Your task to perform on an android device: turn on javascript in the chrome app Image 0: 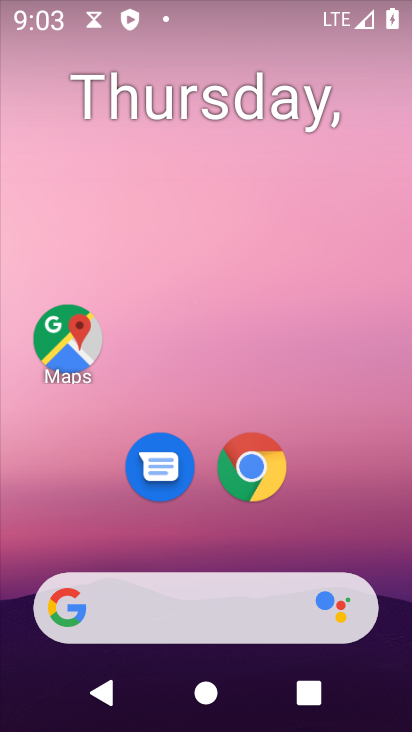
Step 0: click (236, 452)
Your task to perform on an android device: turn on javascript in the chrome app Image 1: 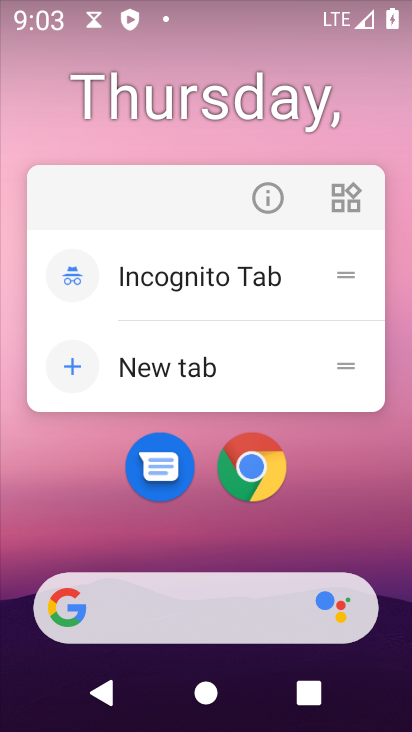
Step 1: click (236, 452)
Your task to perform on an android device: turn on javascript in the chrome app Image 2: 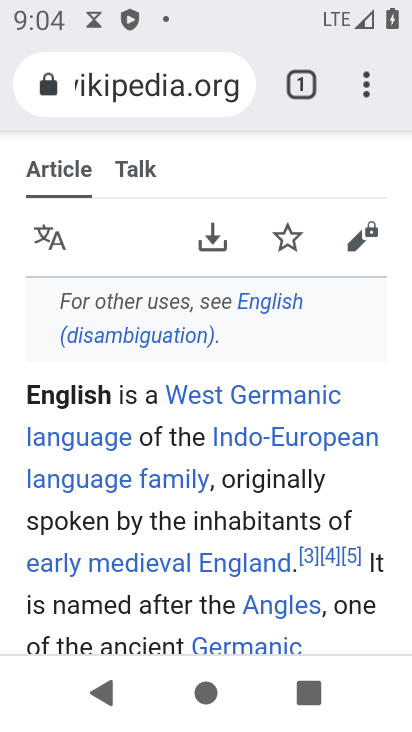
Step 2: click (354, 76)
Your task to perform on an android device: turn on javascript in the chrome app Image 3: 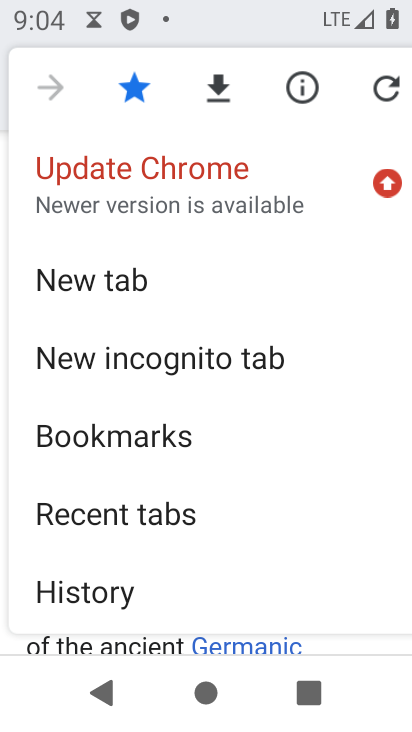
Step 3: drag from (158, 480) to (154, 323)
Your task to perform on an android device: turn on javascript in the chrome app Image 4: 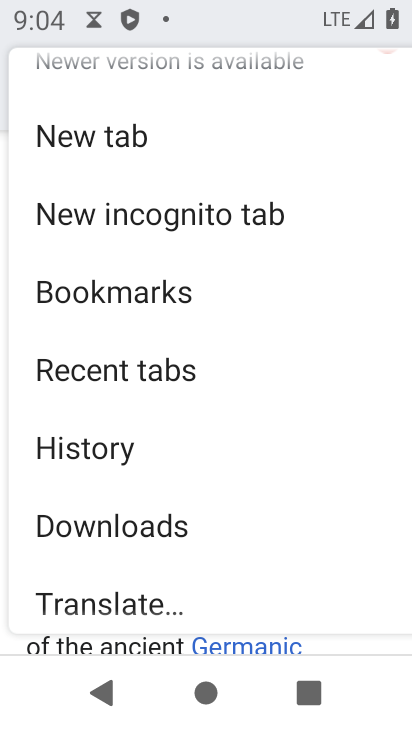
Step 4: drag from (104, 438) to (78, 323)
Your task to perform on an android device: turn on javascript in the chrome app Image 5: 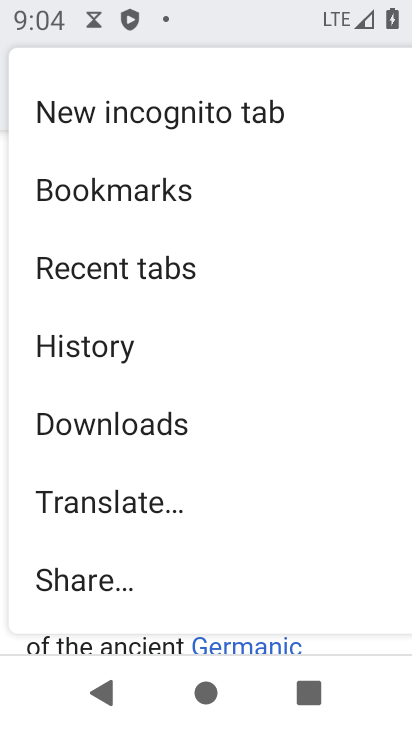
Step 5: drag from (61, 445) to (48, 338)
Your task to perform on an android device: turn on javascript in the chrome app Image 6: 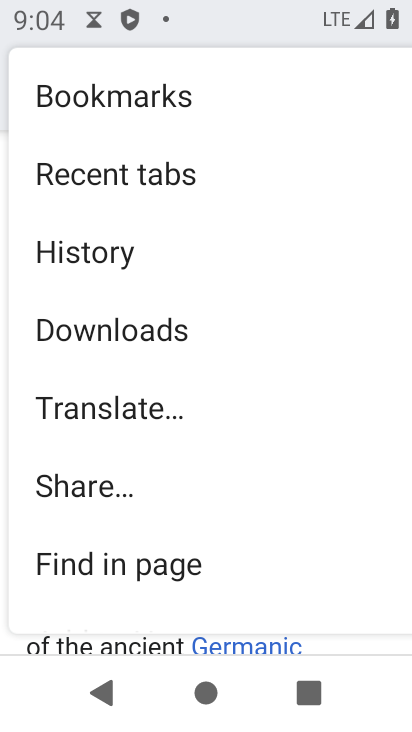
Step 6: drag from (50, 450) to (43, 344)
Your task to perform on an android device: turn on javascript in the chrome app Image 7: 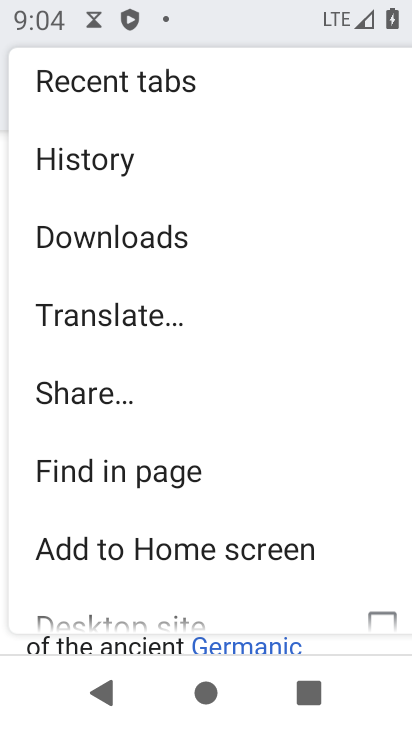
Step 7: drag from (12, 495) to (42, 412)
Your task to perform on an android device: turn on javascript in the chrome app Image 8: 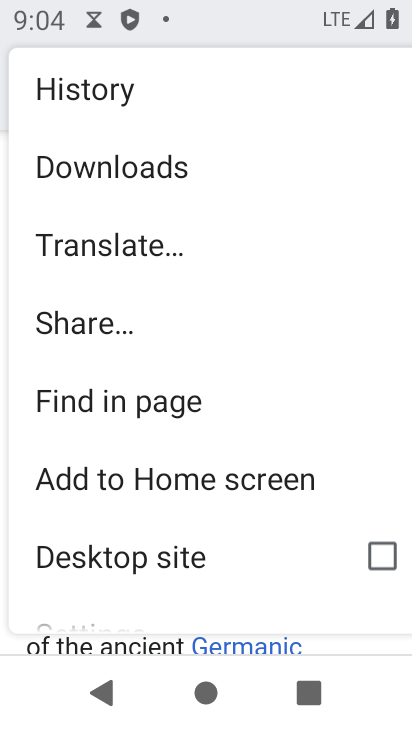
Step 8: drag from (50, 485) to (48, 398)
Your task to perform on an android device: turn on javascript in the chrome app Image 9: 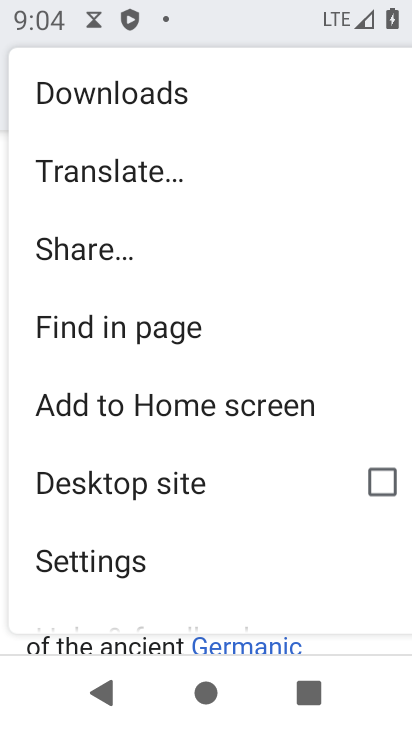
Step 9: click (83, 543)
Your task to perform on an android device: turn on javascript in the chrome app Image 10: 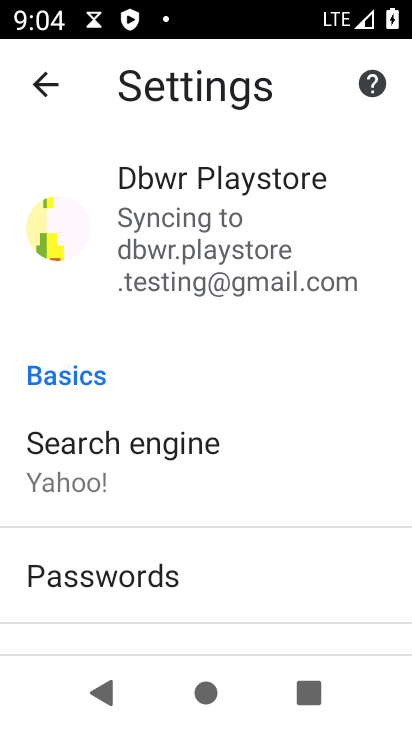
Step 10: drag from (77, 522) to (119, 298)
Your task to perform on an android device: turn on javascript in the chrome app Image 11: 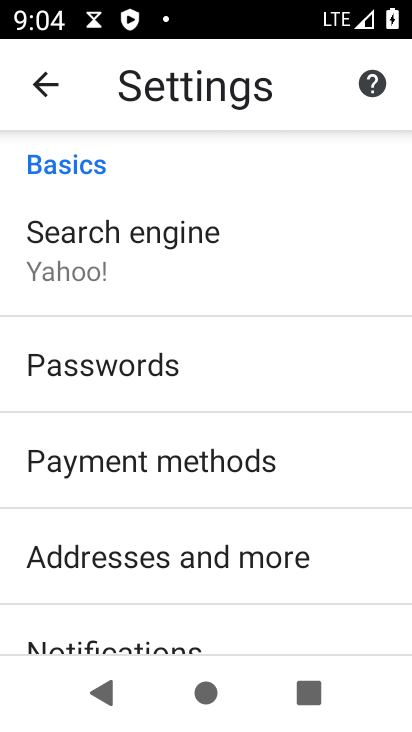
Step 11: drag from (43, 501) to (34, 359)
Your task to perform on an android device: turn on javascript in the chrome app Image 12: 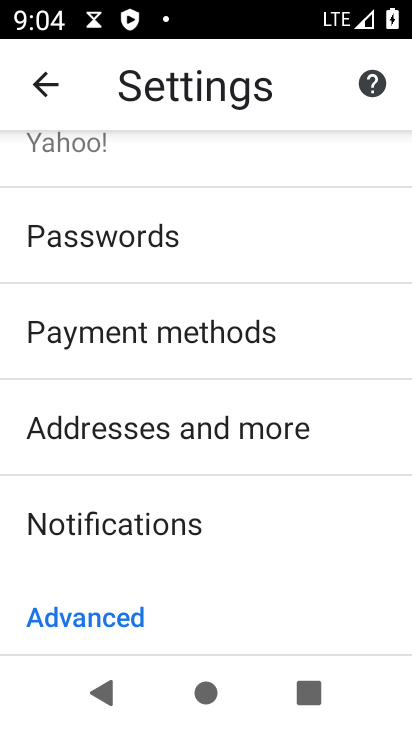
Step 12: drag from (114, 521) to (80, 388)
Your task to perform on an android device: turn on javascript in the chrome app Image 13: 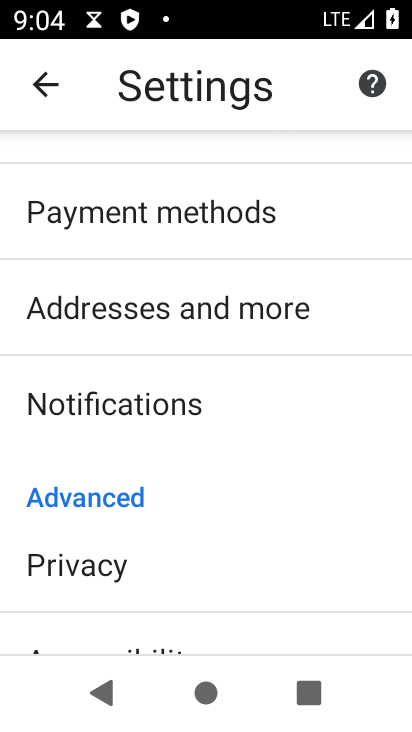
Step 13: drag from (125, 512) to (118, 357)
Your task to perform on an android device: turn on javascript in the chrome app Image 14: 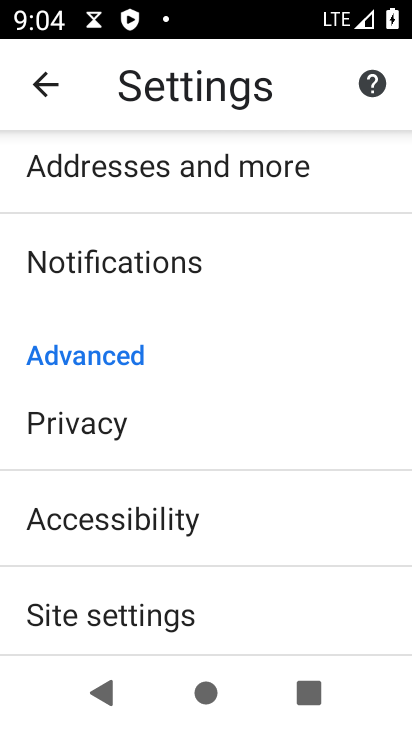
Step 14: drag from (66, 525) to (54, 402)
Your task to perform on an android device: turn on javascript in the chrome app Image 15: 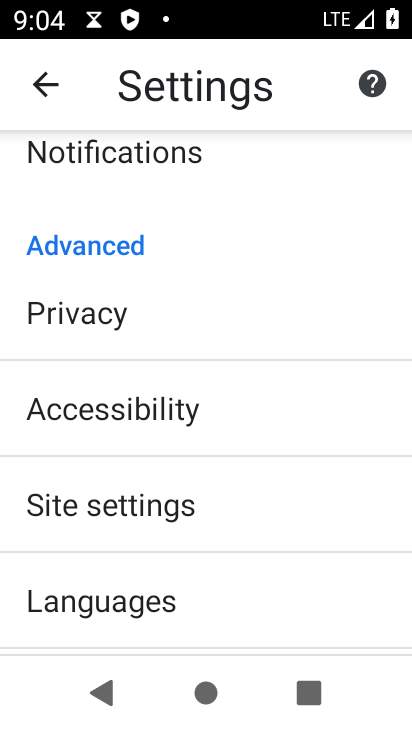
Step 15: click (173, 518)
Your task to perform on an android device: turn on javascript in the chrome app Image 16: 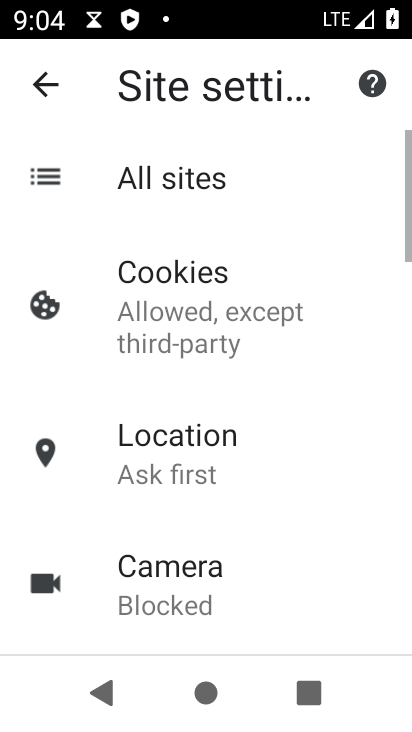
Step 16: drag from (221, 575) to (273, 455)
Your task to perform on an android device: turn on javascript in the chrome app Image 17: 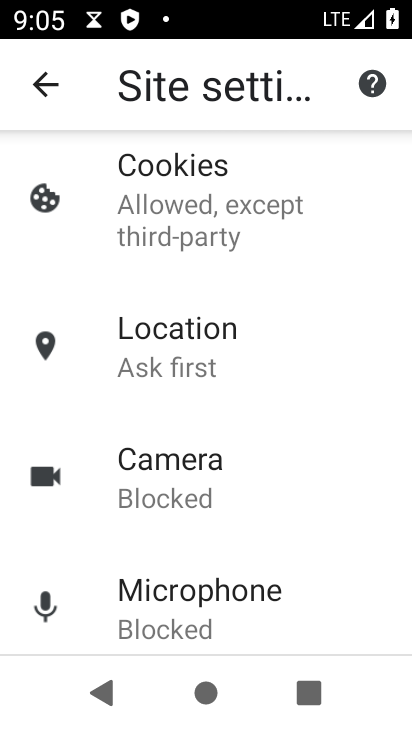
Step 17: drag from (237, 629) to (257, 522)
Your task to perform on an android device: turn on javascript in the chrome app Image 18: 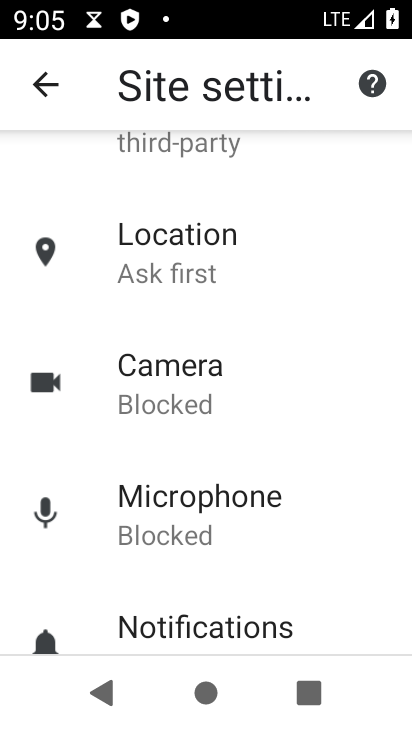
Step 18: drag from (236, 593) to (281, 488)
Your task to perform on an android device: turn on javascript in the chrome app Image 19: 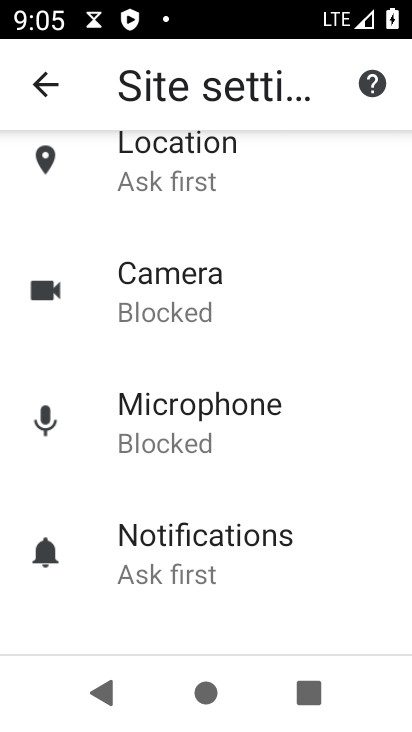
Step 19: drag from (242, 587) to (284, 478)
Your task to perform on an android device: turn on javascript in the chrome app Image 20: 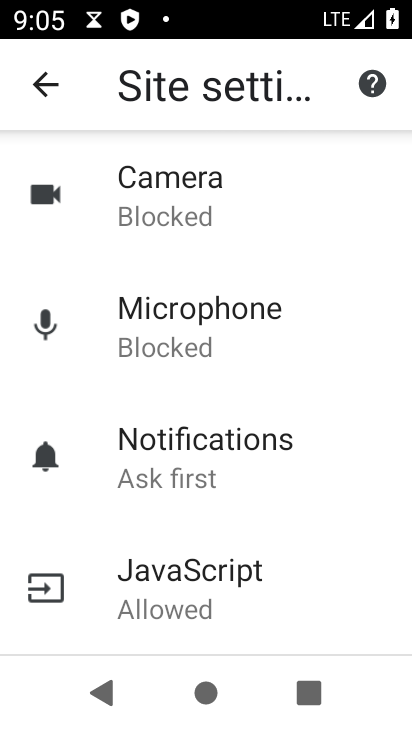
Step 20: click (247, 586)
Your task to perform on an android device: turn on javascript in the chrome app Image 21: 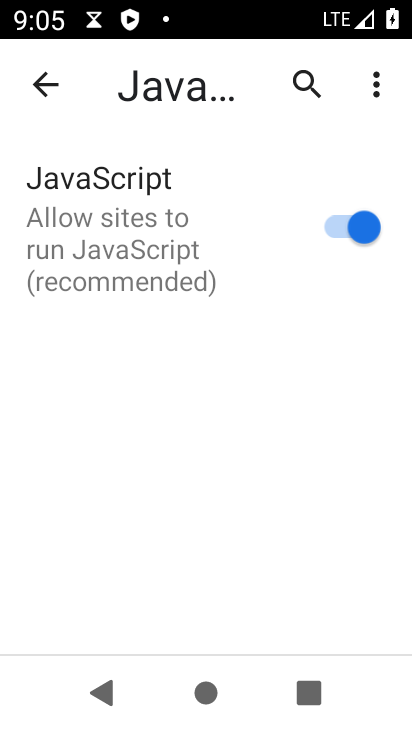
Step 21: task complete